Your task to perform on an android device: star an email in the gmail app Image 0: 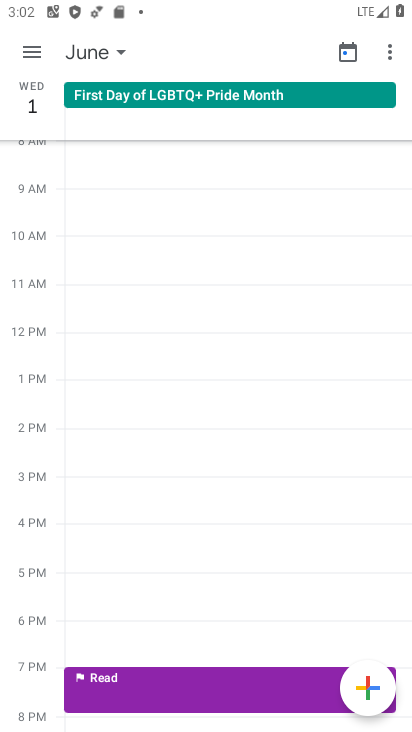
Step 0: press home button
Your task to perform on an android device: star an email in the gmail app Image 1: 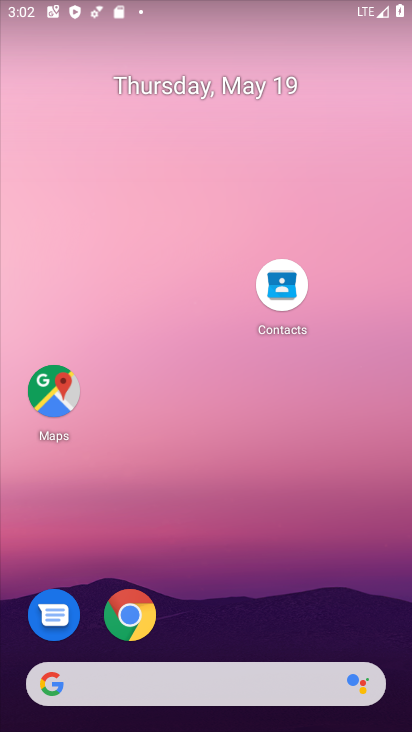
Step 1: drag from (240, 593) to (244, 394)
Your task to perform on an android device: star an email in the gmail app Image 2: 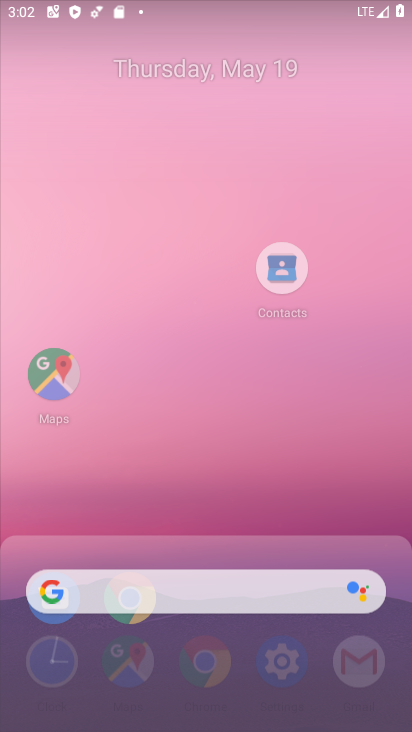
Step 2: click (269, 170)
Your task to perform on an android device: star an email in the gmail app Image 3: 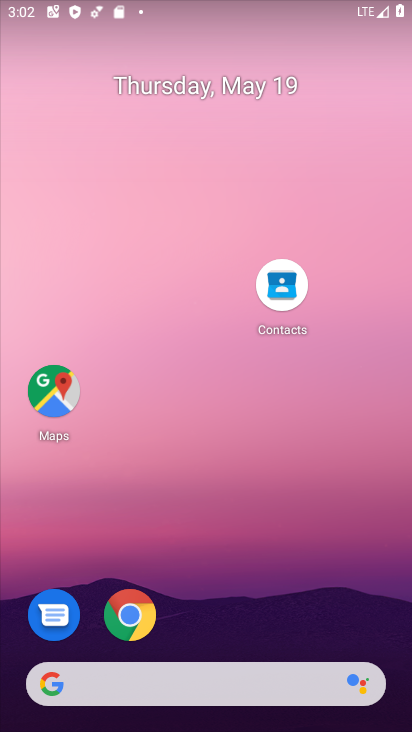
Step 3: drag from (207, 586) to (253, 60)
Your task to perform on an android device: star an email in the gmail app Image 4: 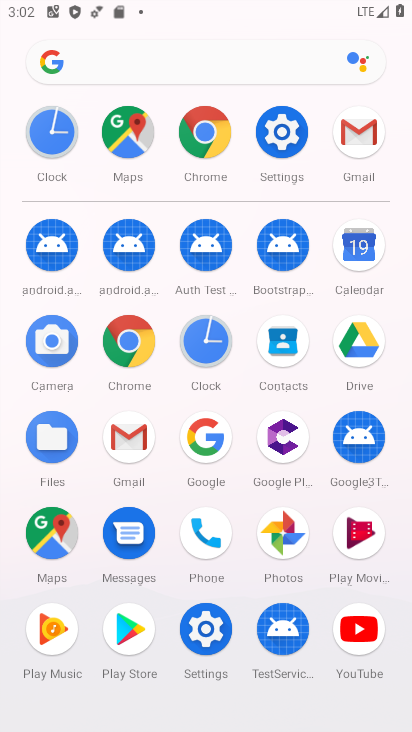
Step 4: click (133, 447)
Your task to perform on an android device: star an email in the gmail app Image 5: 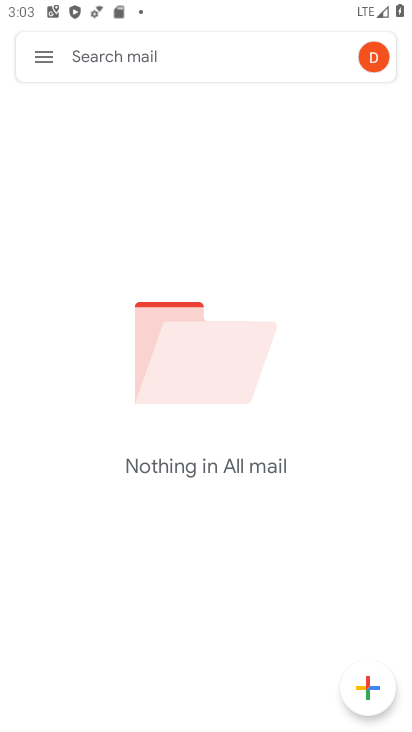
Step 5: task complete